Your task to perform on an android device: set default search engine in the chrome app Image 0: 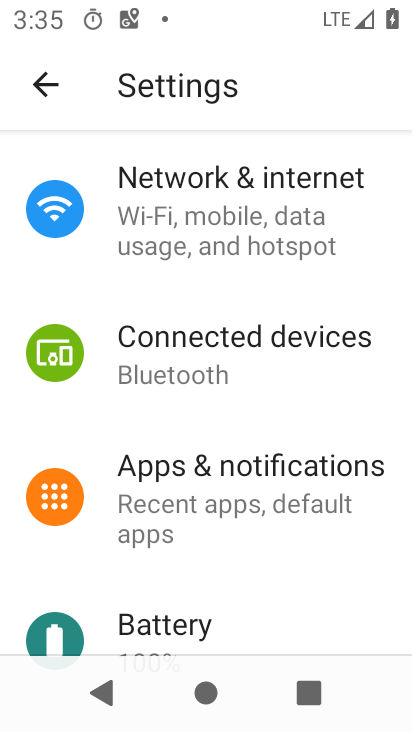
Step 0: press home button
Your task to perform on an android device: set default search engine in the chrome app Image 1: 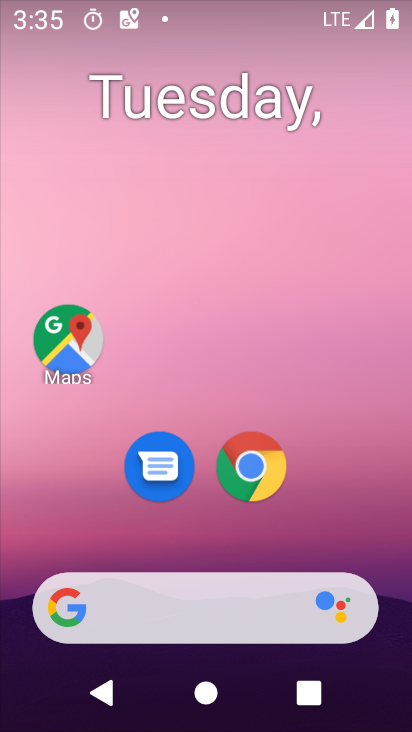
Step 1: drag from (340, 537) to (372, 197)
Your task to perform on an android device: set default search engine in the chrome app Image 2: 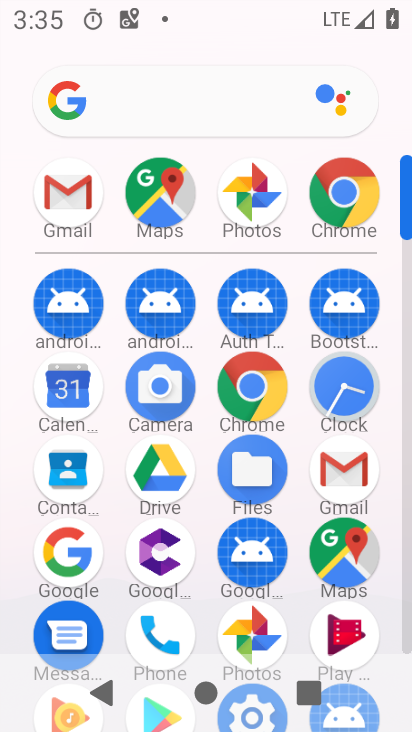
Step 2: click (266, 395)
Your task to perform on an android device: set default search engine in the chrome app Image 3: 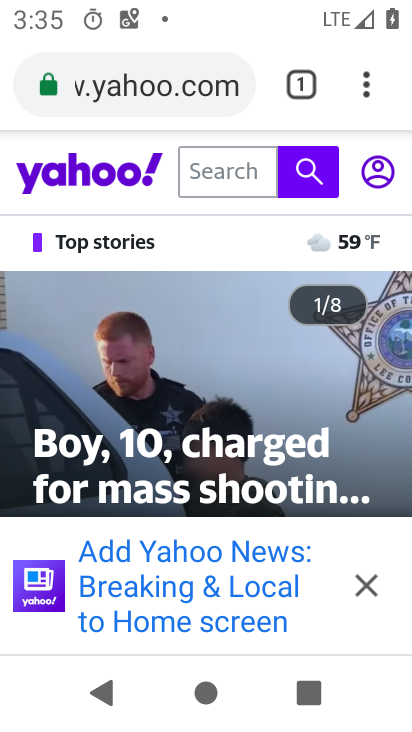
Step 3: click (367, 99)
Your task to perform on an android device: set default search engine in the chrome app Image 4: 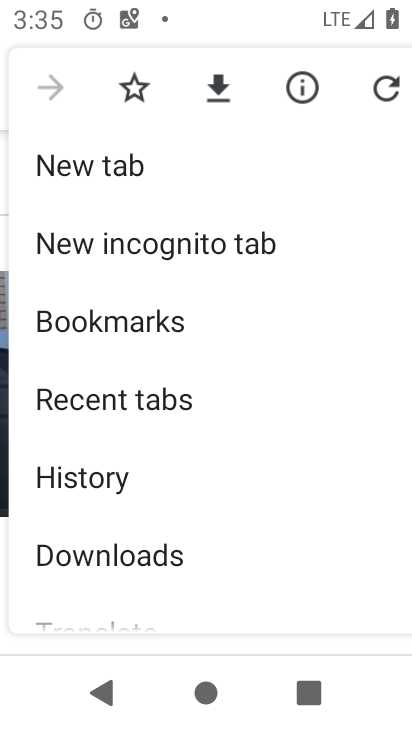
Step 4: drag from (312, 385) to (322, 328)
Your task to perform on an android device: set default search engine in the chrome app Image 5: 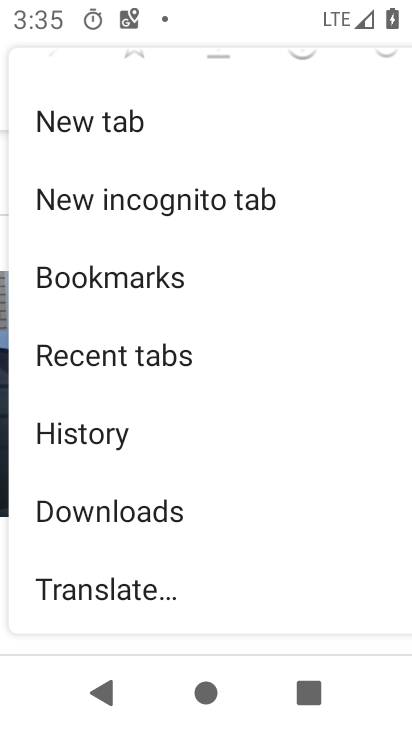
Step 5: drag from (306, 457) to (317, 361)
Your task to perform on an android device: set default search engine in the chrome app Image 6: 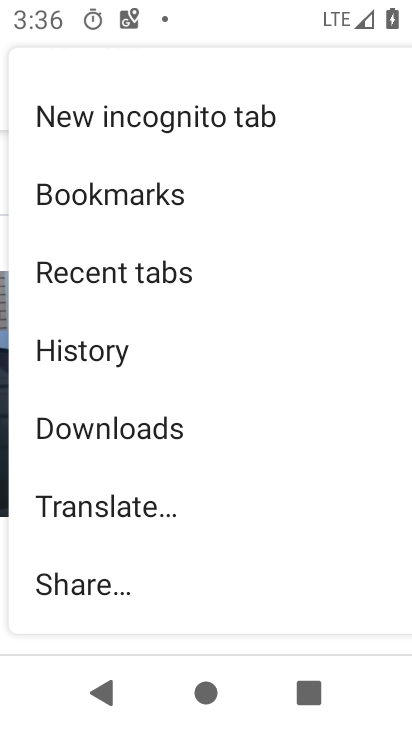
Step 6: drag from (305, 493) to (318, 408)
Your task to perform on an android device: set default search engine in the chrome app Image 7: 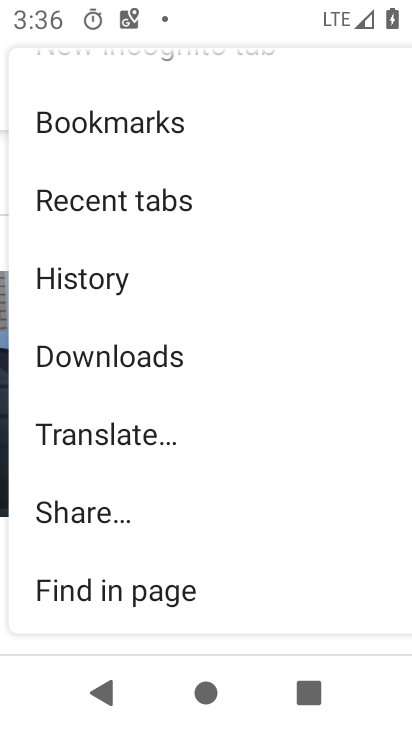
Step 7: drag from (317, 490) to (317, 396)
Your task to perform on an android device: set default search engine in the chrome app Image 8: 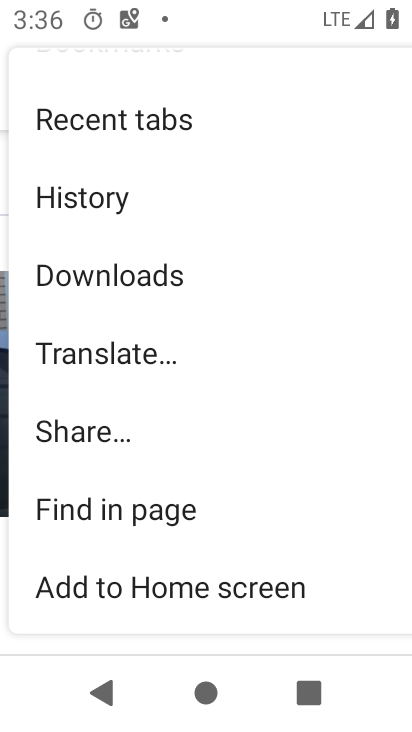
Step 8: drag from (304, 495) to (314, 386)
Your task to perform on an android device: set default search engine in the chrome app Image 9: 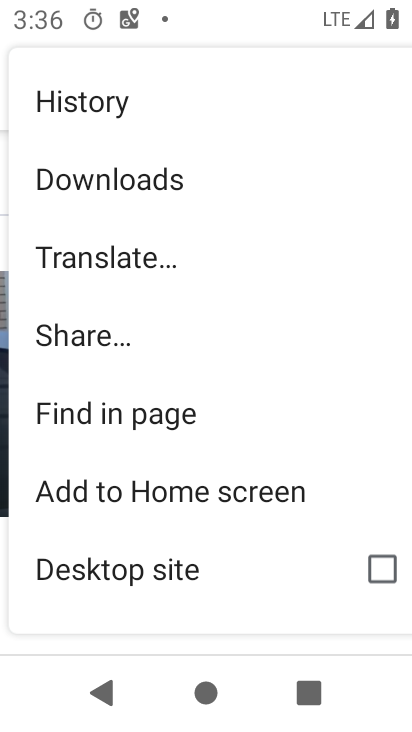
Step 9: drag from (315, 527) to (334, 404)
Your task to perform on an android device: set default search engine in the chrome app Image 10: 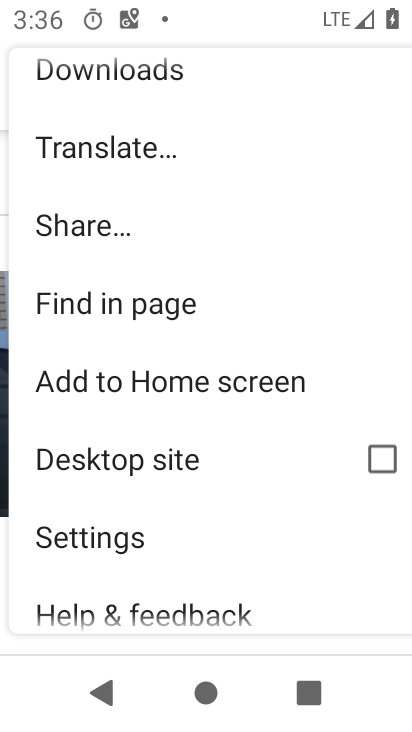
Step 10: drag from (263, 501) to (282, 398)
Your task to perform on an android device: set default search engine in the chrome app Image 11: 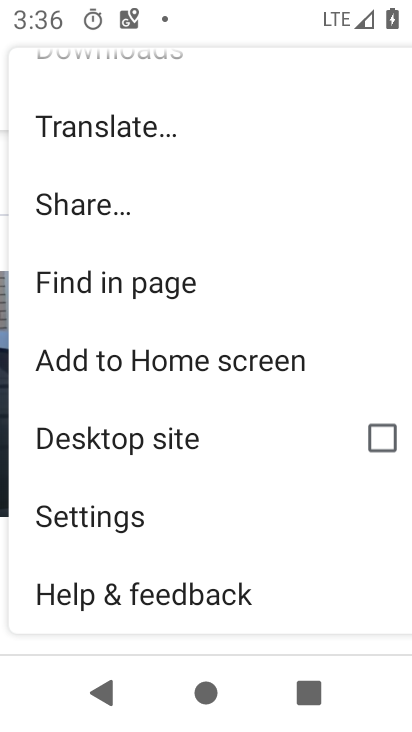
Step 11: click (160, 527)
Your task to perform on an android device: set default search engine in the chrome app Image 12: 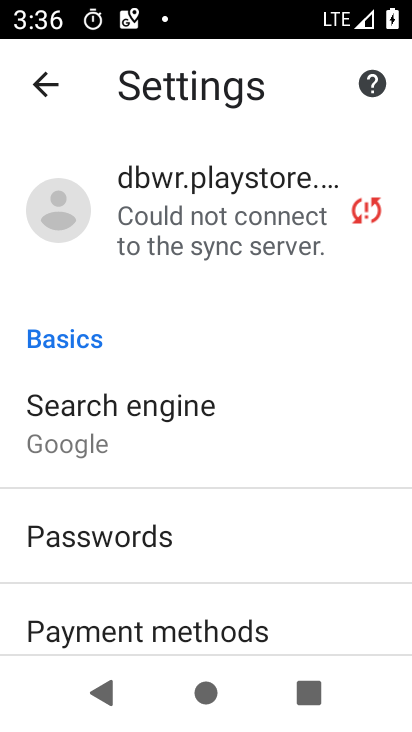
Step 12: click (197, 455)
Your task to perform on an android device: set default search engine in the chrome app Image 13: 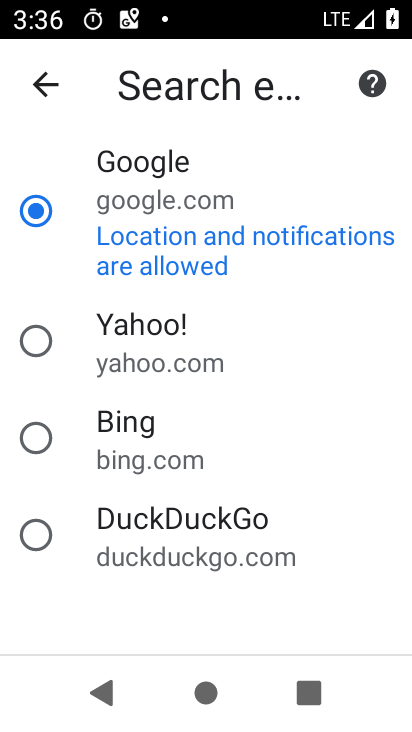
Step 13: click (156, 441)
Your task to perform on an android device: set default search engine in the chrome app Image 14: 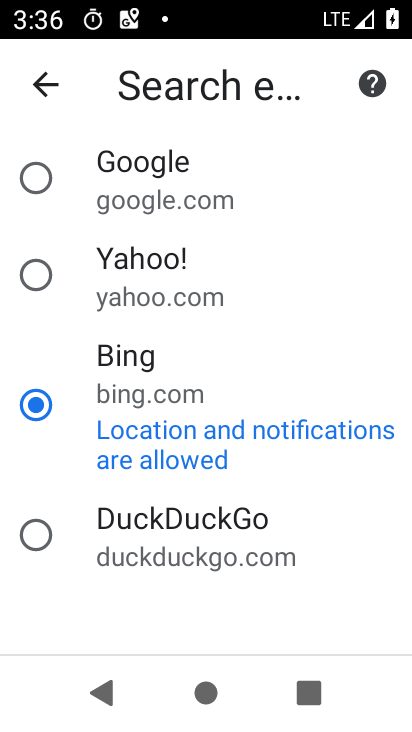
Step 14: task complete